Your task to perform on an android device: toggle notifications settings in the gmail app Image 0: 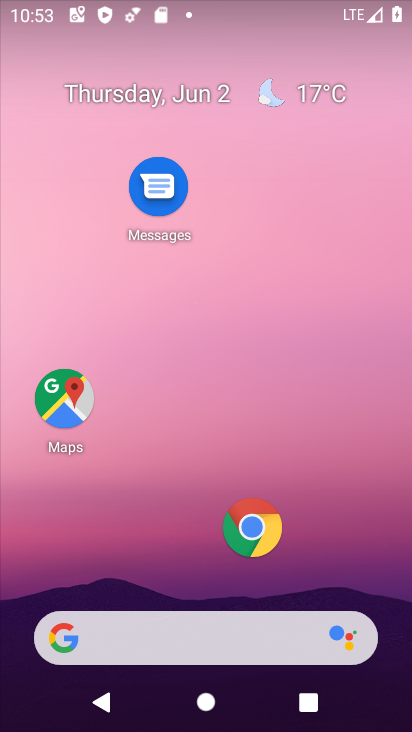
Step 0: press home button
Your task to perform on an android device: toggle notifications settings in the gmail app Image 1: 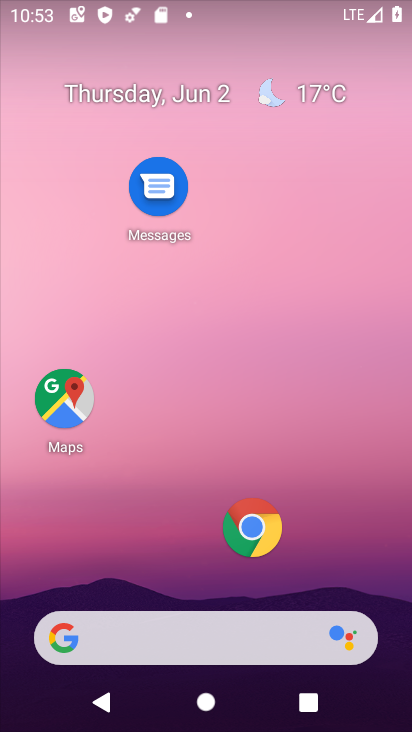
Step 1: drag from (196, 578) to (242, 211)
Your task to perform on an android device: toggle notifications settings in the gmail app Image 2: 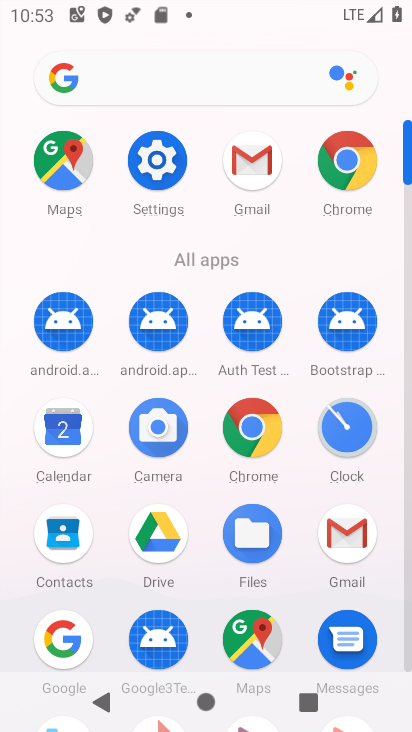
Step 2: click (255, 151)
Your task to perform on an android device: toggle notifications settings in the gmail app Image 3: 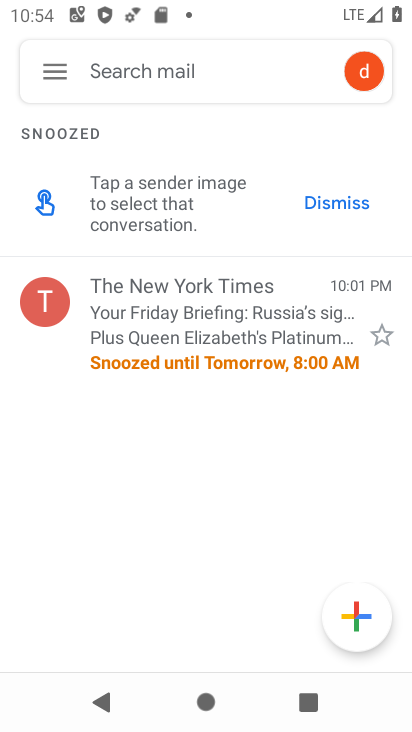
Step 3: click (61, 73)
Your task to perform on an android device: toggle notifications settings in the gmail app Image 4: 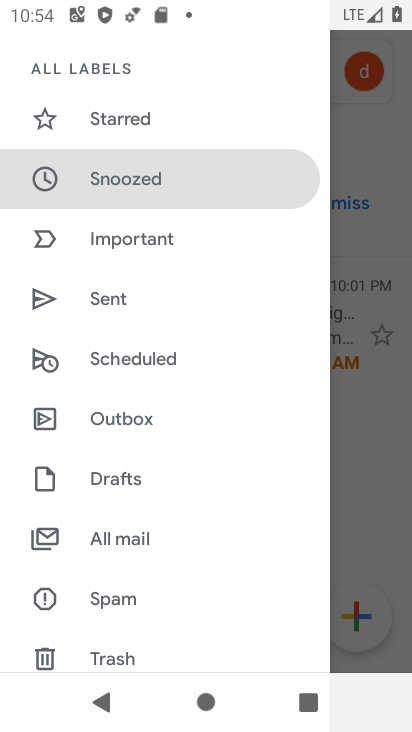
Step 4: drag from (148, 568) to (164, 112)
Your task to perform on an android device: toggle notifications settings in the gmail app Image 5: 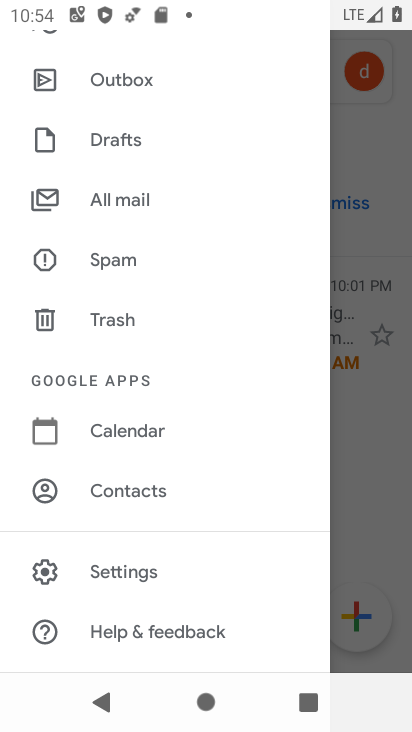
Step 5: click (171, 569)
Your task to perform on an android device: toggle notifications settings in the gmail app Image 6: 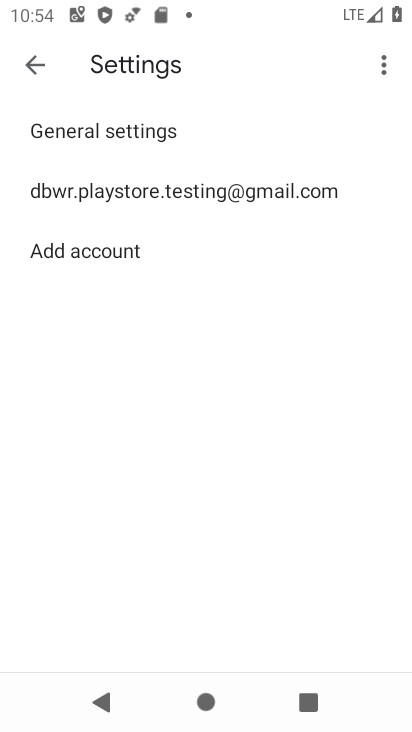
Step 6: click (186, 122)
Your task to perform on an android device: toggle notifications settings in the gmail app Image 7: 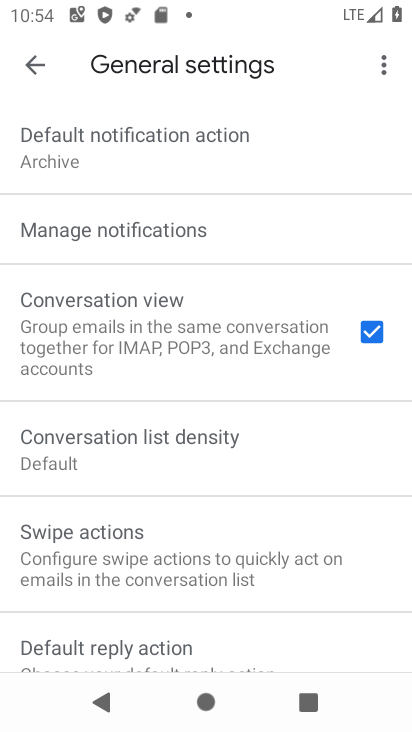
Step 7: click (223, 223)
Your task to perform on an android device: toggle notifications settings in the gmail app Image 8: 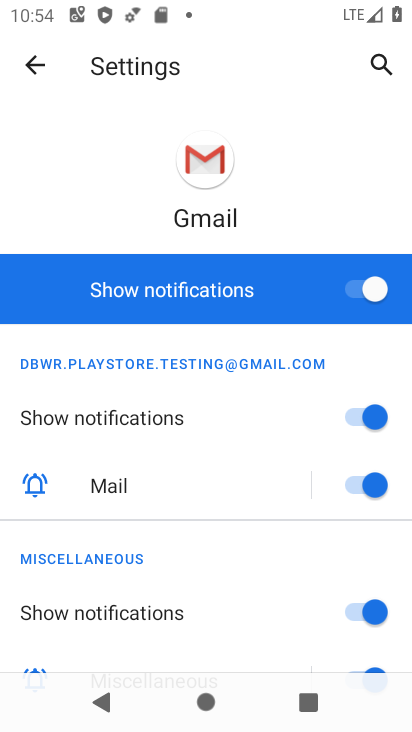
Step 8: click (356, 283)
Your task to perform on an android device: toggle notifications settings in the gmail app Image 9: 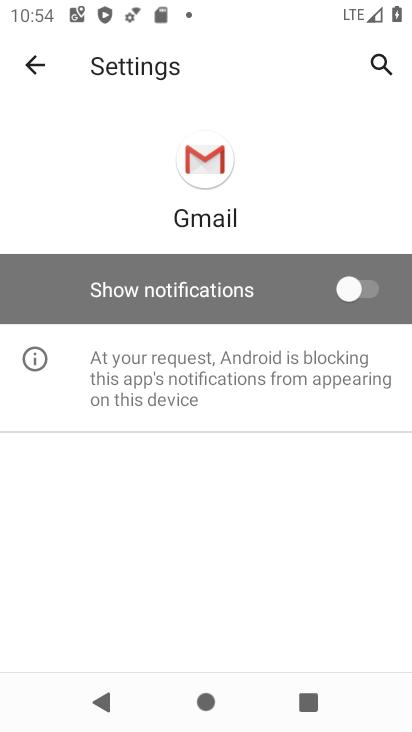
Step 9: task complete